Your task to perform on an android device: add a contact Image 0: 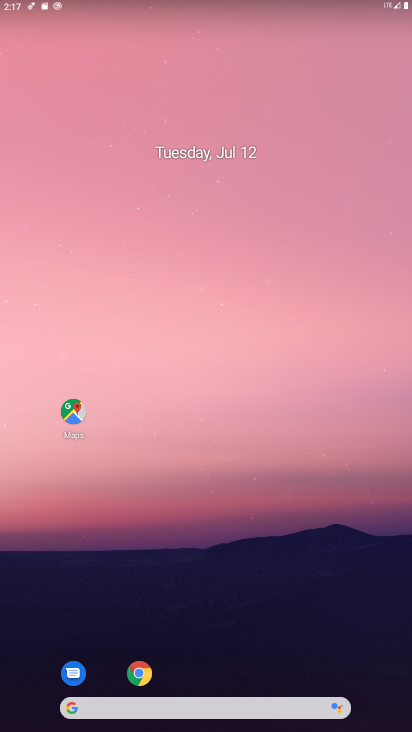
Step 0: drag from (276, 607) to (277, 0)
Your task to perform on an android device: add a contact Image 1: 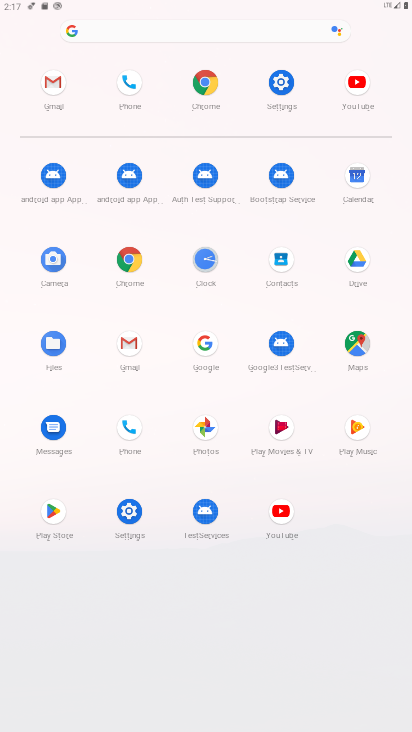
Step 1: click (280, 253)
Your task to perform on an android device: add a contact Image 2: 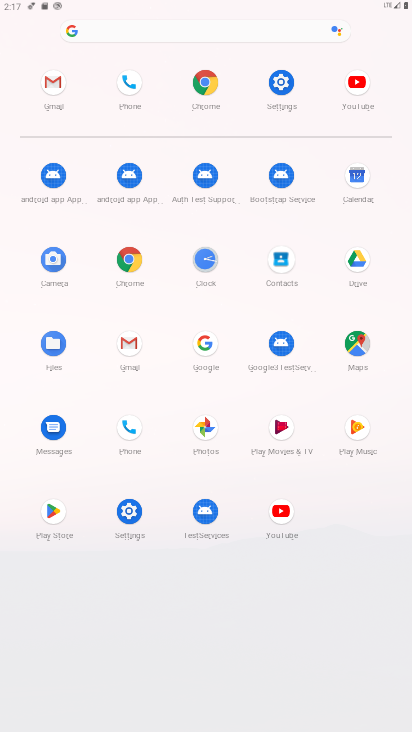
Step 2: click (280, 253)
Your task to perform on an android device: add a contact Image 3: 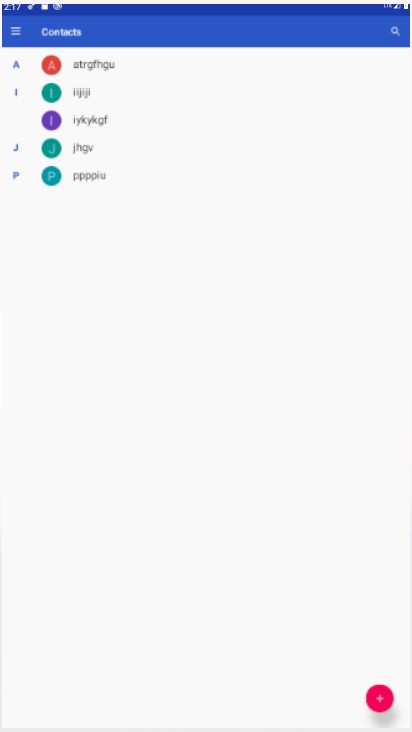
Step 3: click (281, 253)
Your task to perform on an android device: add a contact Image 4: 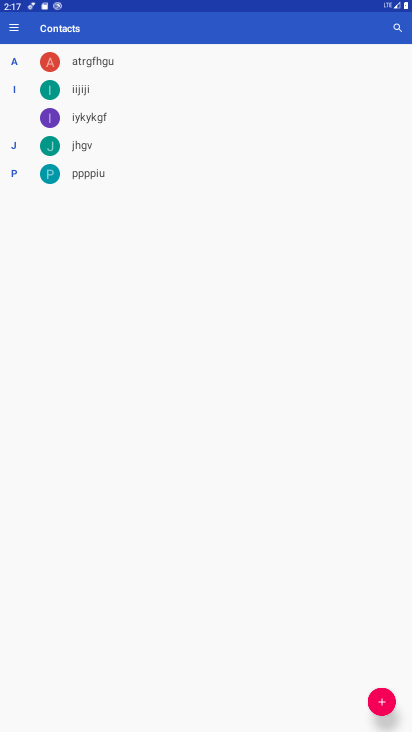
Step 4: click (379, 689)
Your task to perform on an android device: add a contact Image 5: 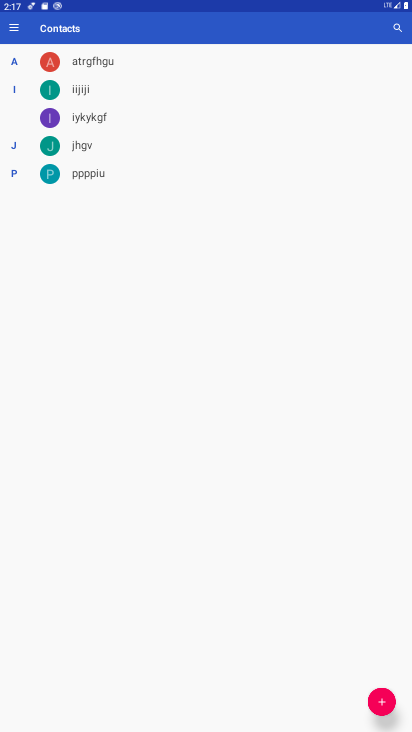
Step 5: click (380, 691)
Your task to perform on an android device: add a contact Image 6: 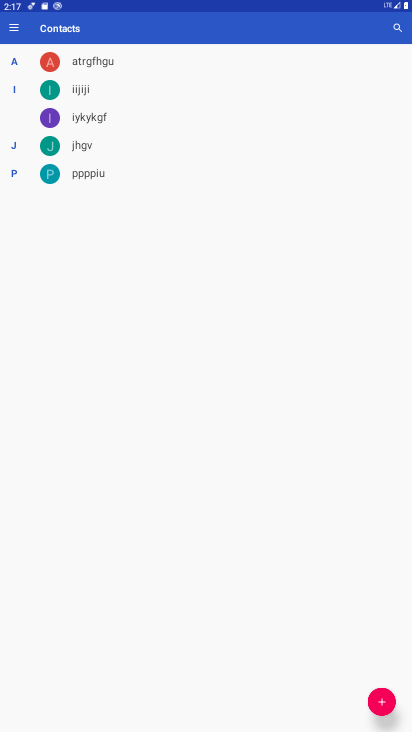
Step 6: click (380, 691)
Your task to perform on an android device: add a contact Image 7: 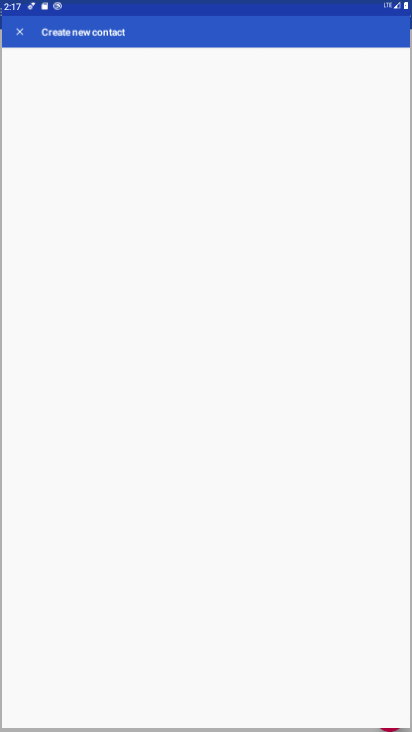
Step 7: click (380, 691)
Your task to perform on an android device: add a contact Image 8: 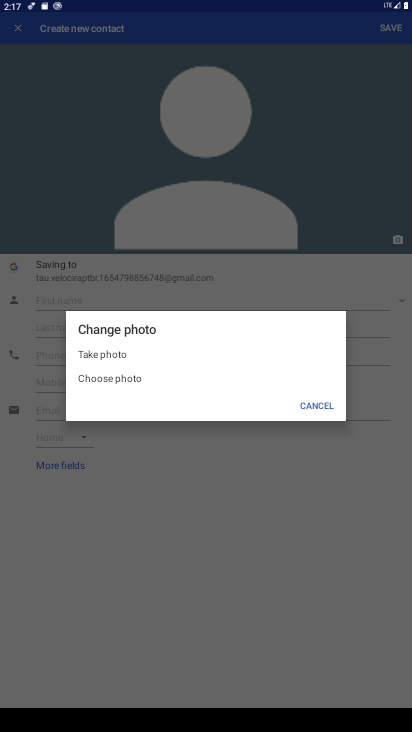
Step 8: click (311, 406)
Your task to perform on an android device: add a contact Image 9: 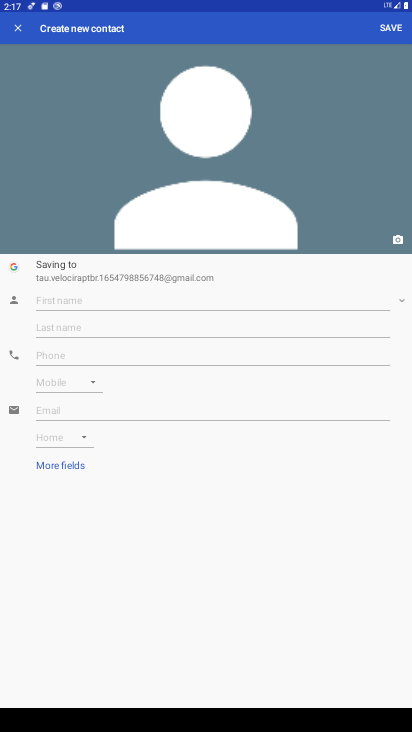
Step 9: click (311, 406)
Your task to perform on an android device: add a contact Image 10: 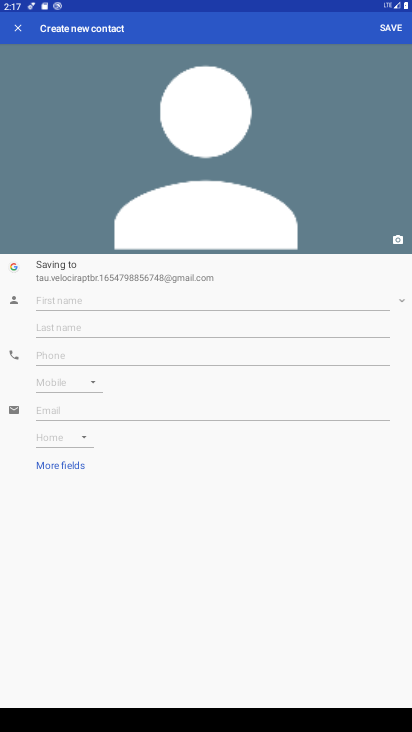
Step 10: click (58, 296)
Your task to perform on an android device: add a contact Image 11: 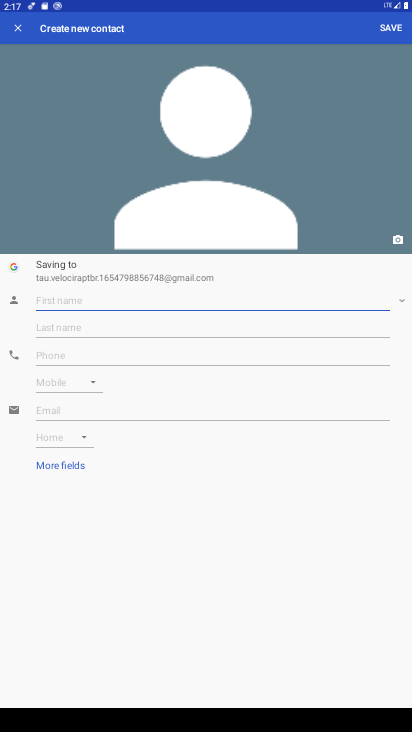
Step 11: type "b kjcbc kj"
Your task to perform on an android device: add a contact Image 12: 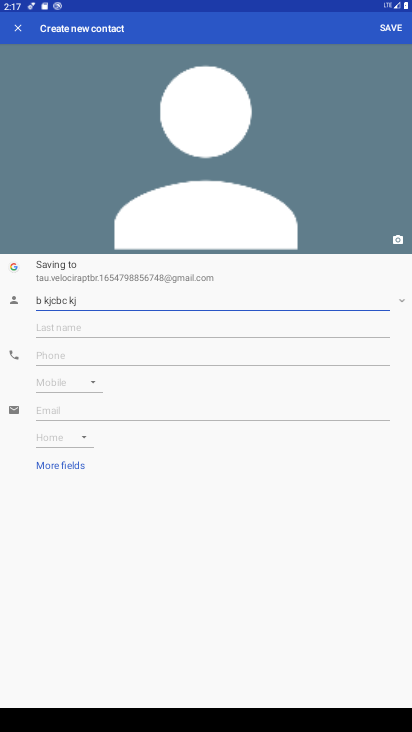
Step 12: click (50, 352)
Your task to perform on an android device: add a contact Image 13: 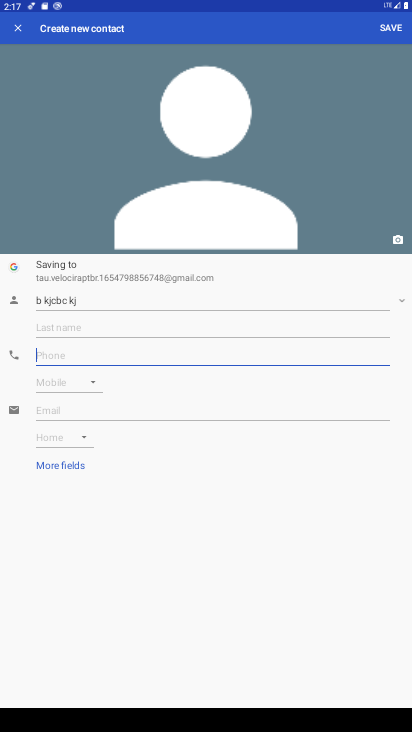
Step 13: type "63262746746324872"
Your task to perform on an android device: add a contact Image 14: 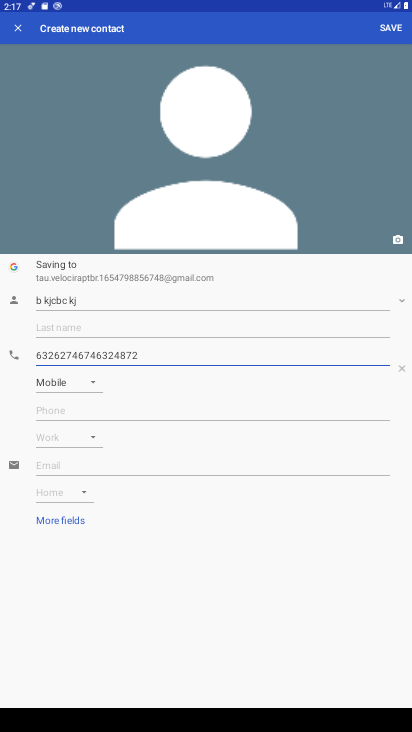
Step 14: click (385, 30)
Your task to perform on an android device: add a contact Image 15: 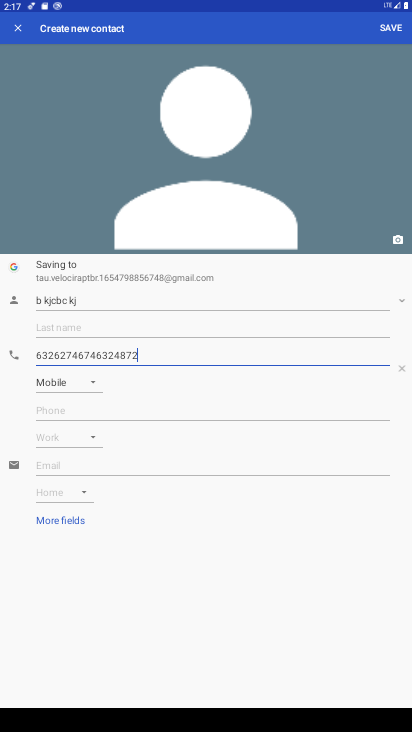
Step 15: click (385, 31)
Your task to perform on an android device: add a contact Image 16: 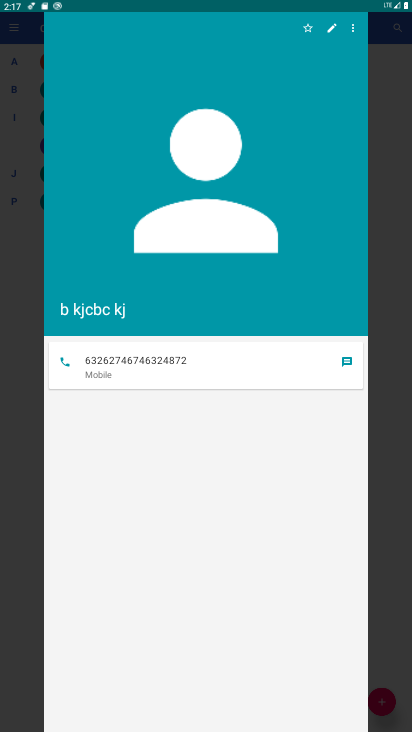
Step 16: task complete